Your task to perform on an android device: turn off sleep mode Image 0: 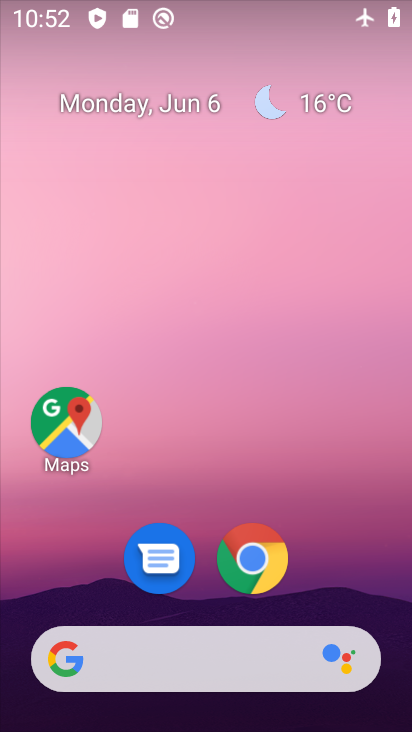
Step 0: drag from (95, 571) to (149, 239)
Your task to perform on an android device: turn off sleep mode Image 1: 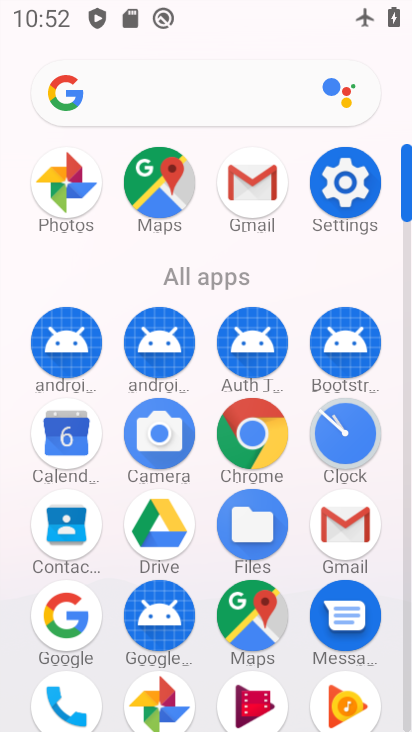
Step 1: drag from (186, 669) to (244, 379)
Your task to perform on an android device: turn off sleep mode Image 2: 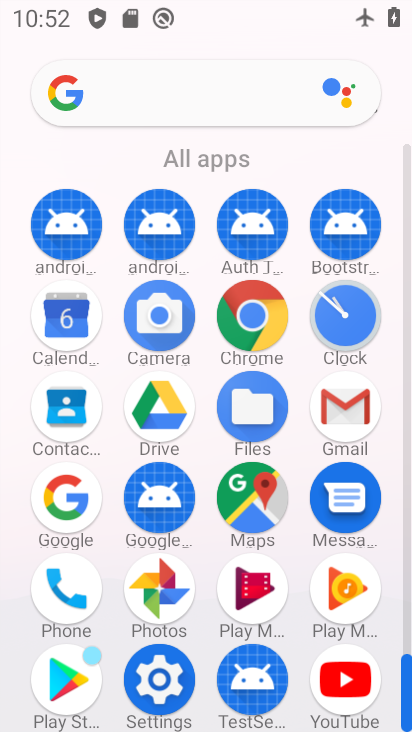
Step 2: click (167, 684)
Your task to perform on an android device: turn off sleep mode Image 3: 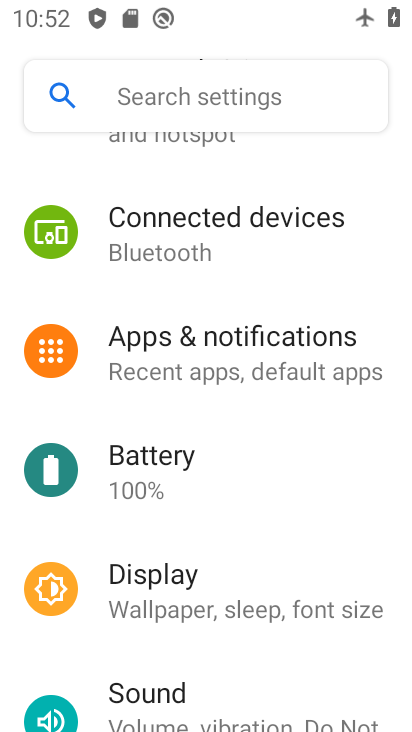
Step 3: click (226, 597)
Your task to perform on an android device: turn off sleep mode Image 4: 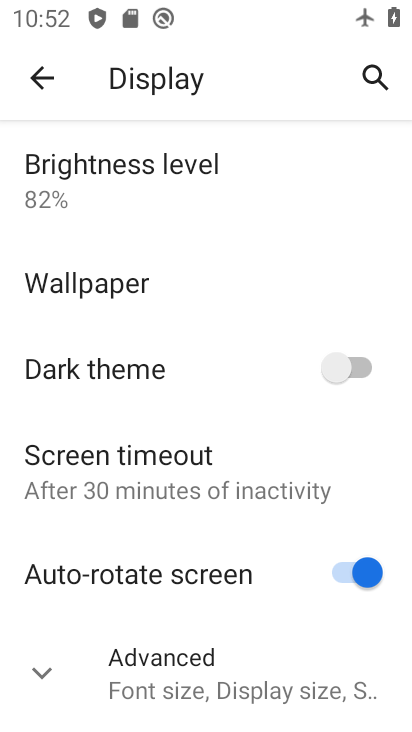
Step 4: click (226, 657)
Your task to perform on an android device: turn off sleep mode Image 5: 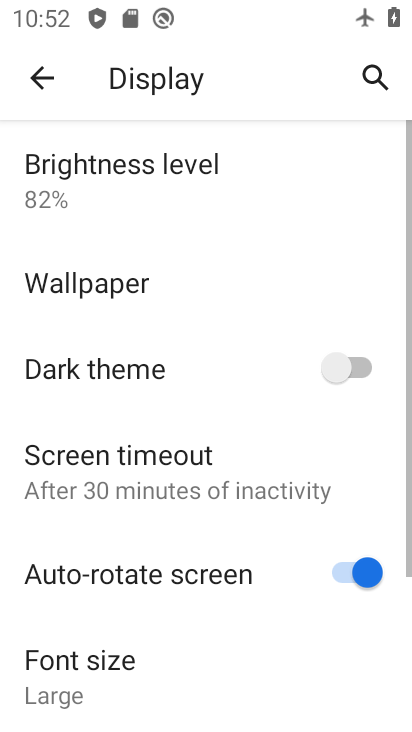
Step 5: task complete